Your task to perform on an android device: Go to Yahoo.com Image 0: 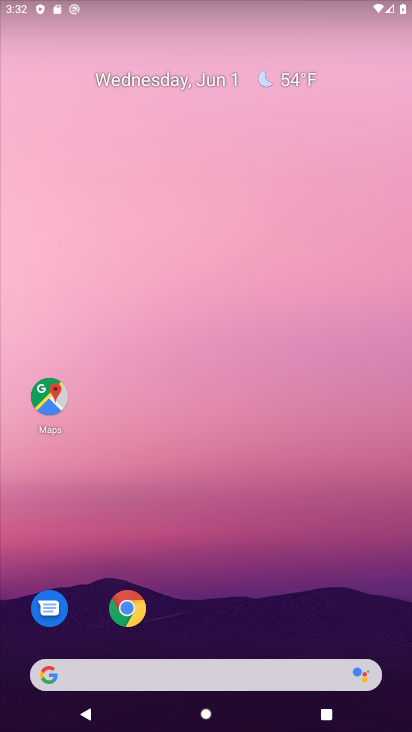
Step 0: press back button
Your task to perform on an android device: Go to Yahoo.com Image 1: 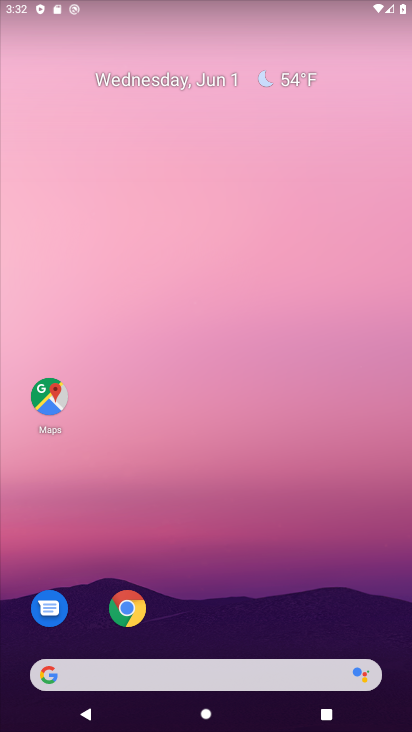
Step 1: click (131, 613)
Your task to perform on an android device: Go to Yahoo.com Image 2: 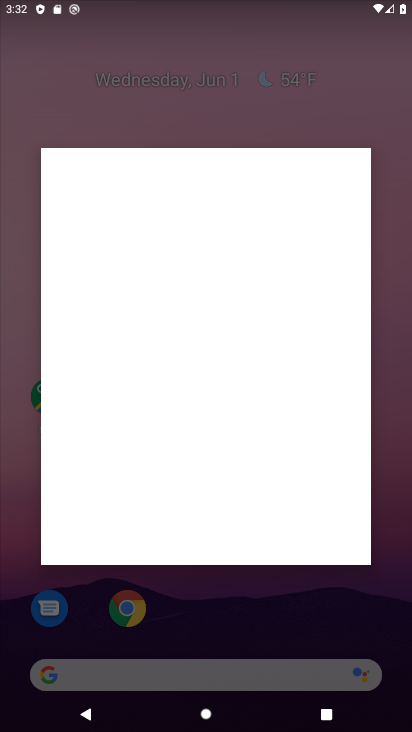
Step 2: press back button
Your task to perform on an android device: Go to Yahoo.com Image 3: 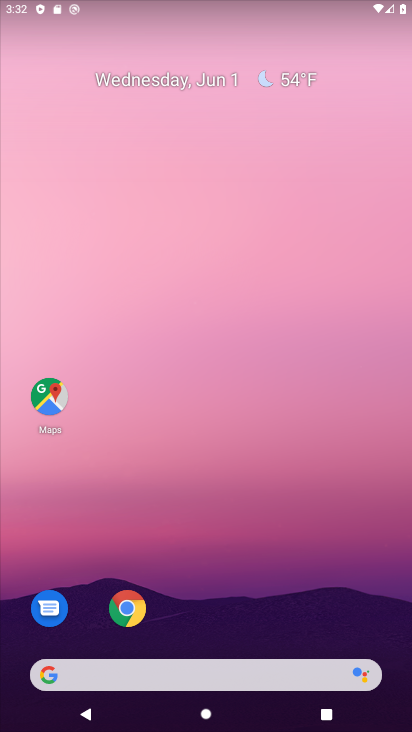
Step 3: drag from (151, 726) to (164, 46)
Your task to perform on an android device: Go to Yahoo.com Image 4: 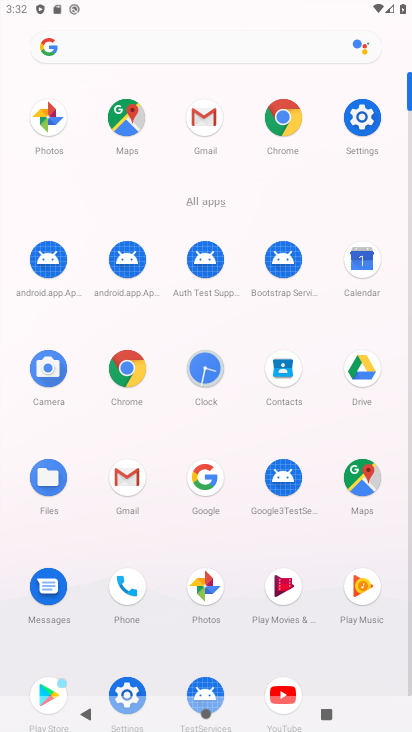
Step 4: click (281, 119)
Your task to perform on an android device: Go to Yahoo.com Image 5: 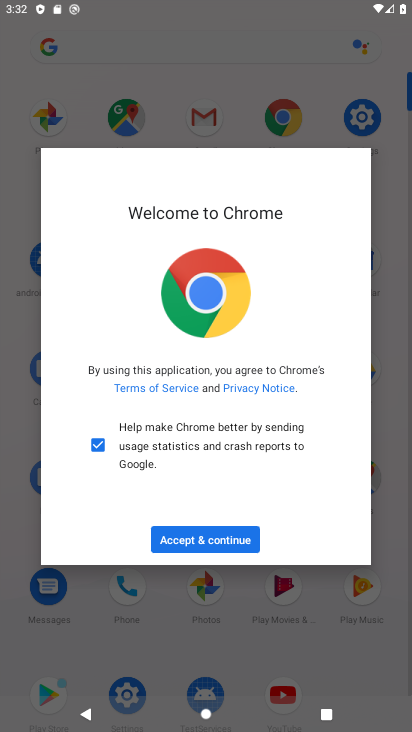
Step 5: click (170, 543)
Your task to perform on an android device: Go to Yahoo.com Image 6: 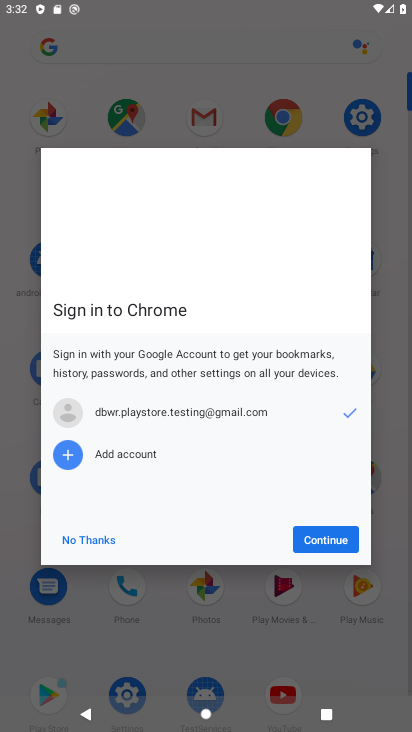
Step 6: click (312, 540)
Your task to perform on an android device: Go to Yahoo.com Image 7: 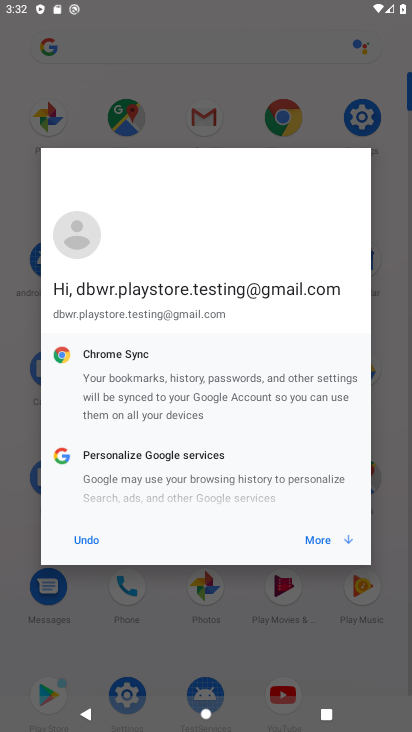
Step 7: click (315, 533)
Your task to perform on an android device: Go to Yahoo.com Image 8: 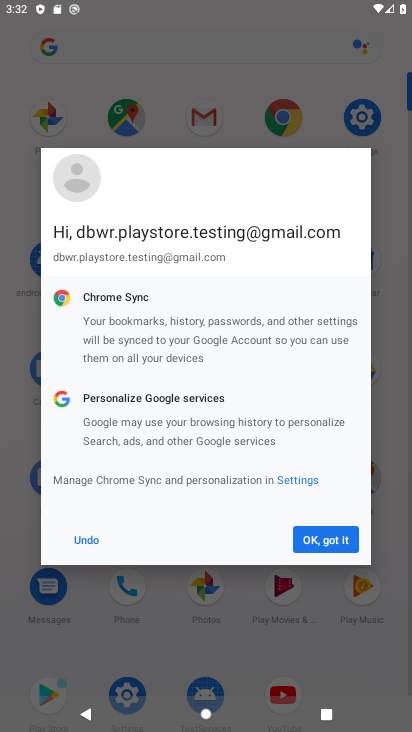
Step 8: click (320, 536)
Your task to perform on an android device: Go to Yahoo.com Image 9: 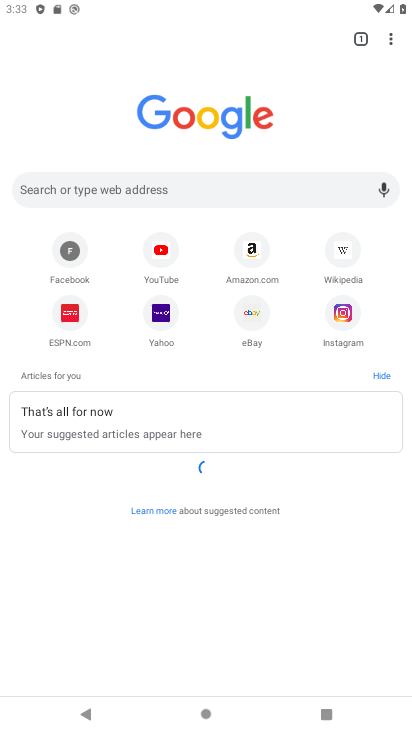
Step 9: click (159, 318)
Your task to perform on an android device: Go to Yahoo.com Image 10: 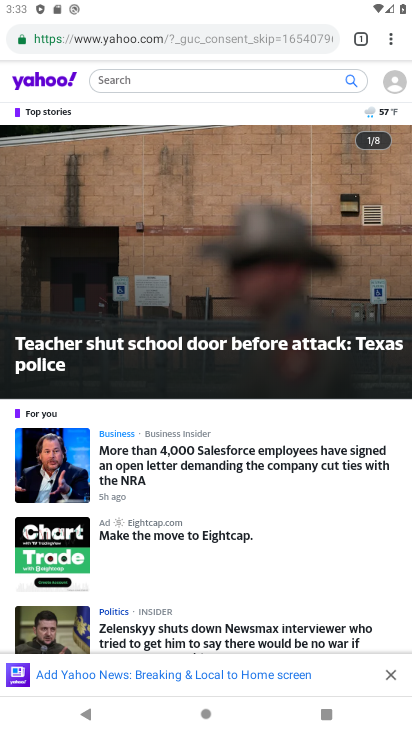
Step 10: task complete